Your task to perform on an android device: Open Android settings Image 0: 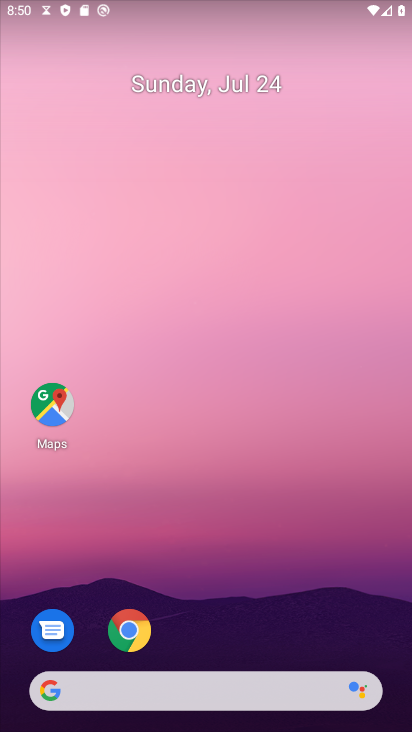
Step 0: drag from (374, 639) to (270, 77)
Your task to perform on an android device: Open Android settings Image 1: 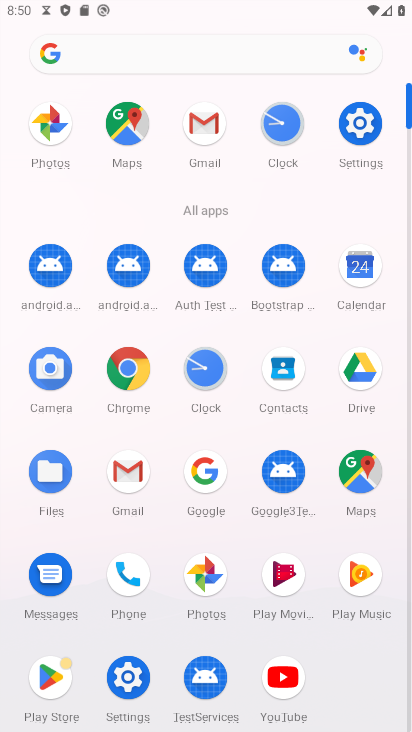
Step 1: click (351, 123)
Your task to perform on an android device: Open Android settings Image 2: 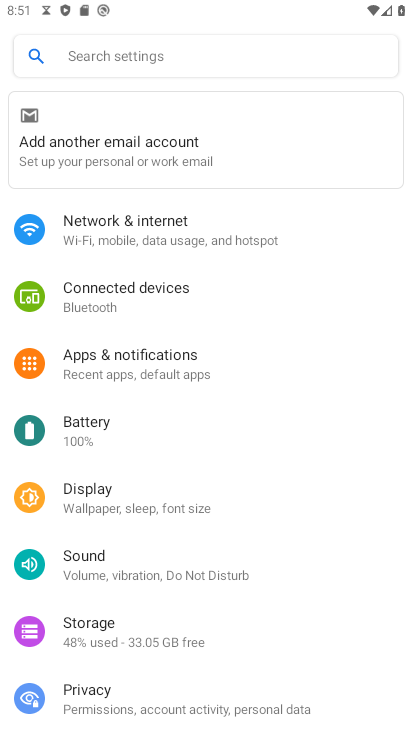
Step 2: task complete